Your task to perform on an android device: turn off airplane mode Image 0: 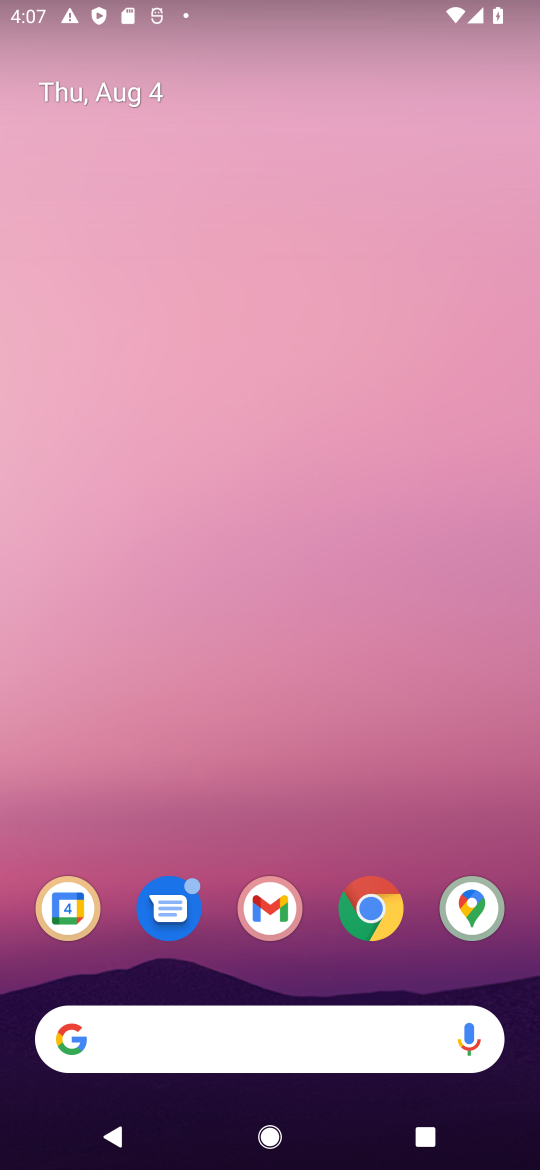
Step 0: drag from (250, 932) to (291, 68)
Your task to perform on an android device: turn off airplane mode Image 1: 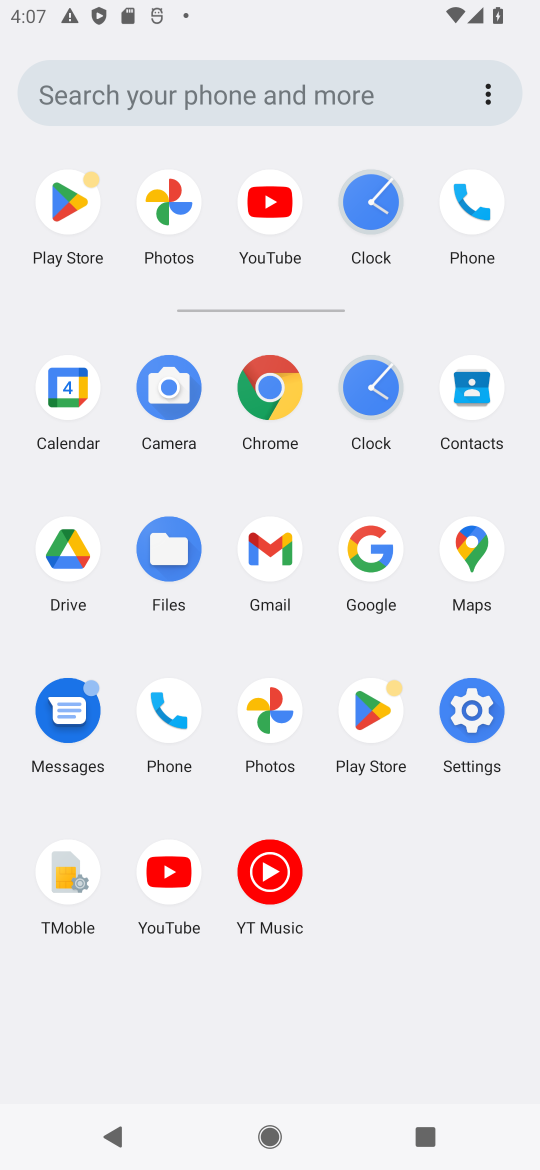
Step 1: click (486, 718)
Your task to perform on an android device: turn off airplane mode Image 2: 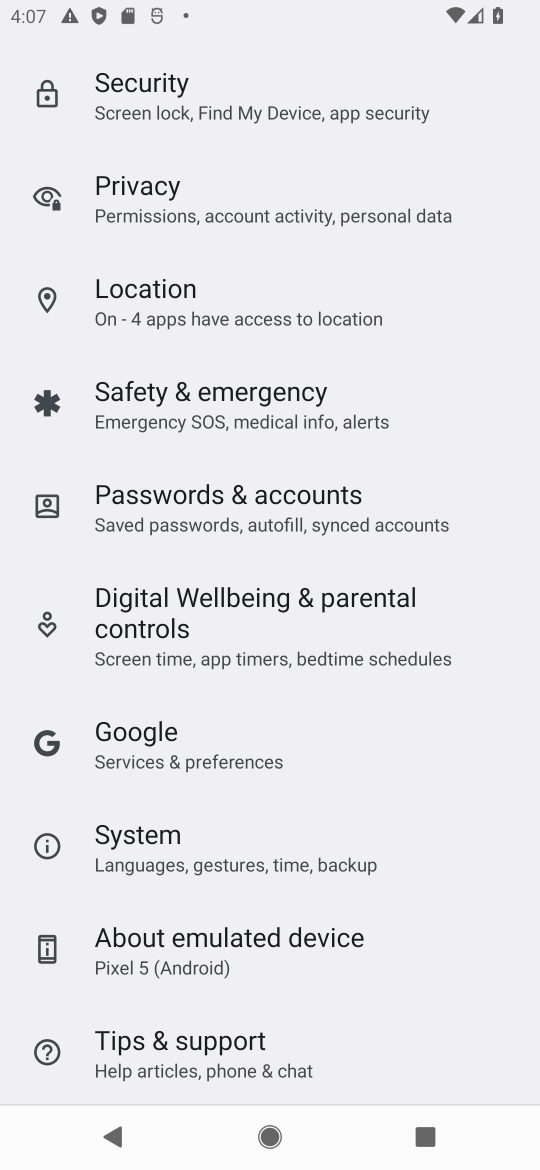
Step 2: drag from (181, 272) to (303, 1091)
Your task to perform on an android device: turn off airplane mode Image 3: 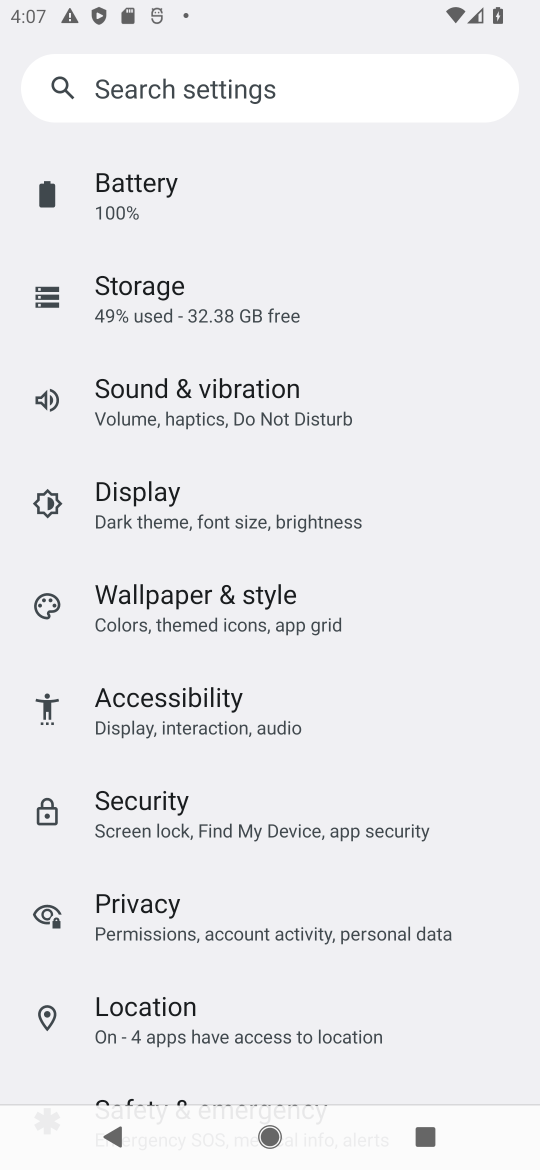
Step 3: drag from (270, 580) to (311, 1037)
Your task to perform on an android device: turn off airplane mode Image 4: 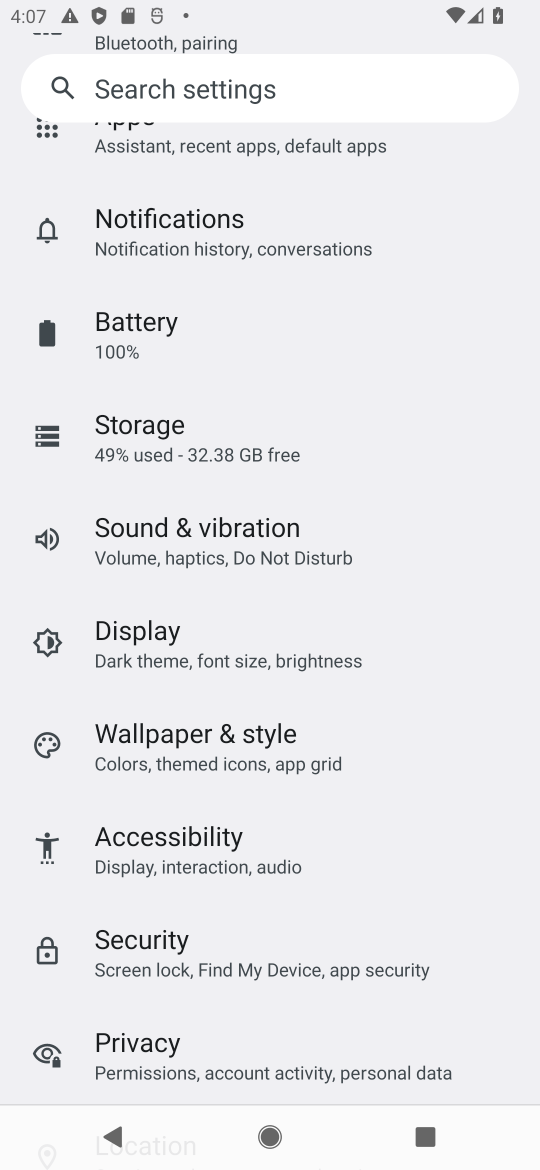
Step 4: drag from (254, 264) to (404, 1103)
Your task to perform on an android device: turn off airplane mode Image 5: 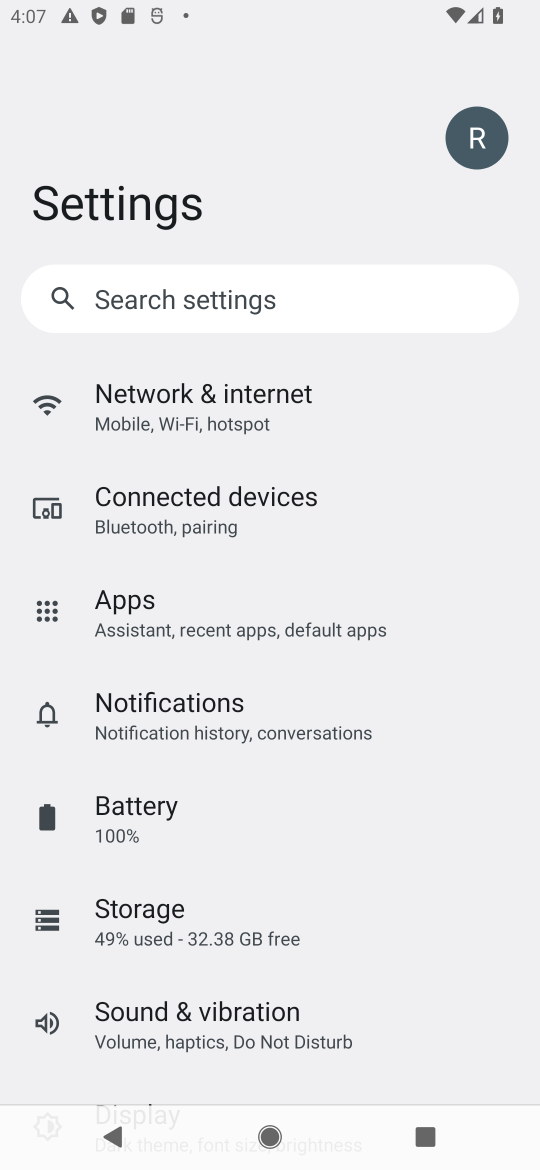
Step 5: click (134, 416)
Your task to perform on an android device: turn off airplane mode Image 6: 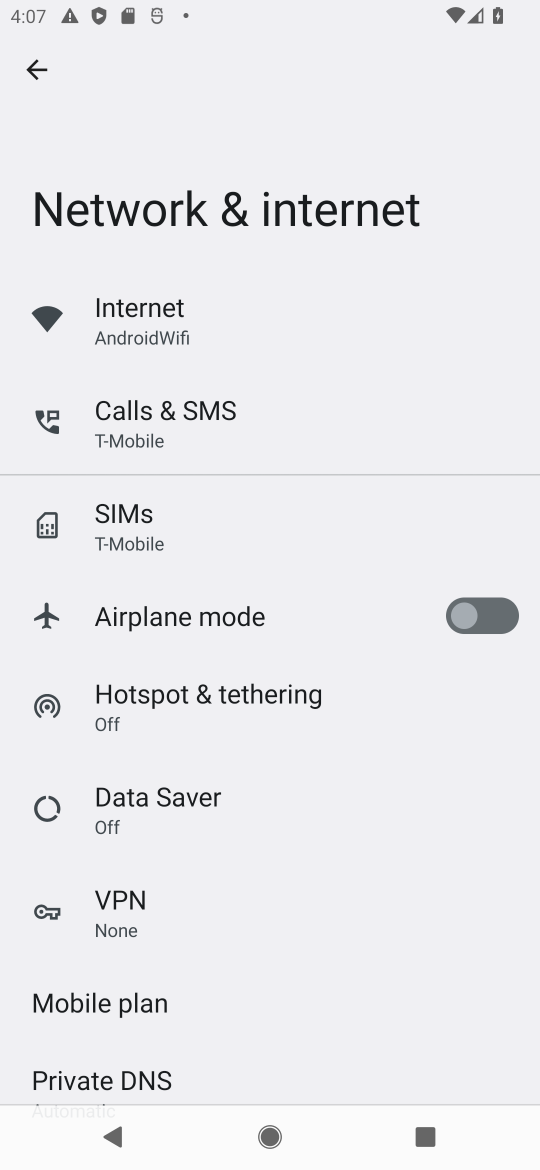
Step 6: task complete